Your task to perform on an android device: add a label to a message in the gmail app Image 0: 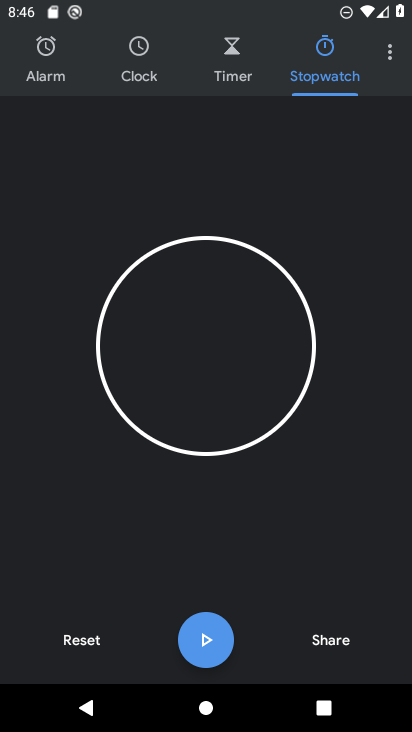
Step 0: press home button
Your task to perform on an android device: add a label to a message in the gmail app Image 1: 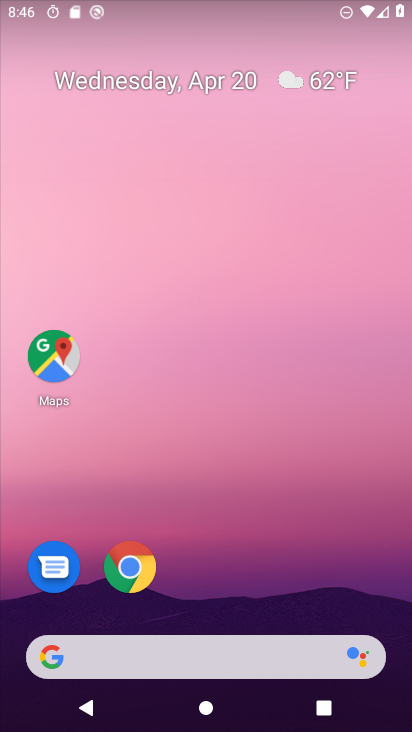
Step 1: drag from (382, 612) to (360, 85)
Your task to perform on an android device: add a label to a message in the gmail app Image 2: 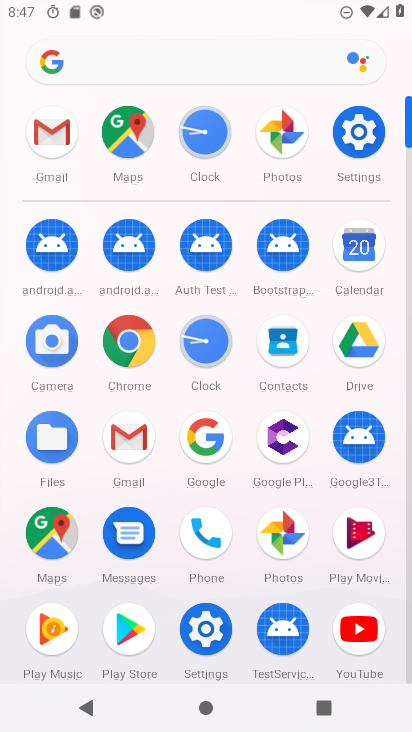
Step 2: click (56, 143)
Your task to perform on an android device: add a label to a message in the gmail app Image 3: 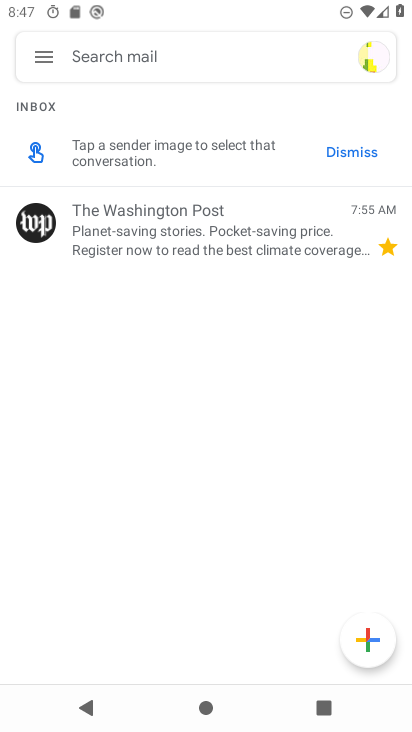
Step 3: click (46, 57)
Your task to perform on an android device: add a label to a message in the gmail app Image 4: 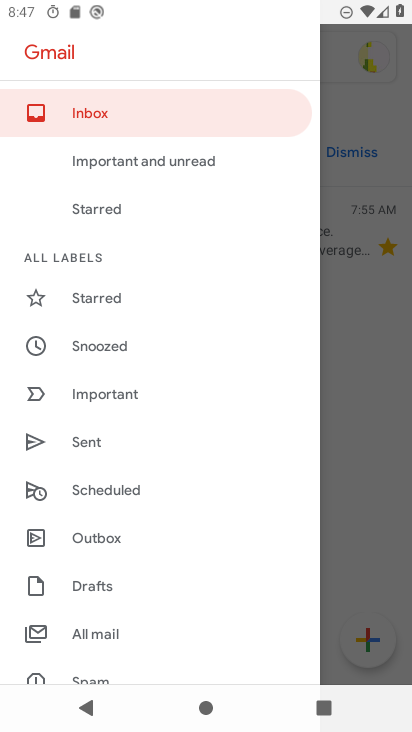
Step 4: click (101, 629)
Your task to perform on an android device: add a label to a message in the gmail app Image 5: 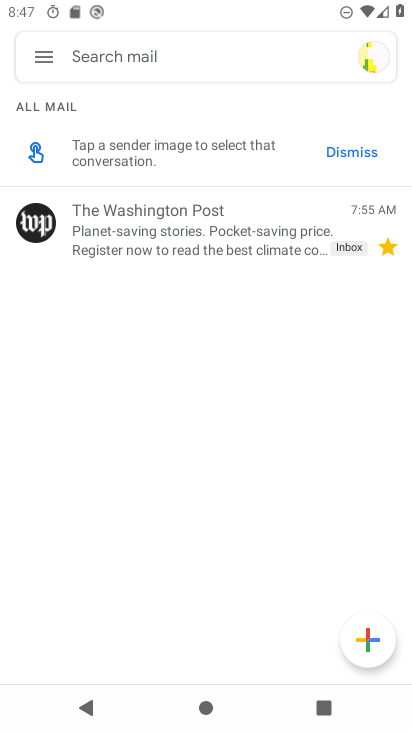
Step 5: click (212, 239)
Your task to perform on an android device: add a label to a message in the gmail app Image 6: 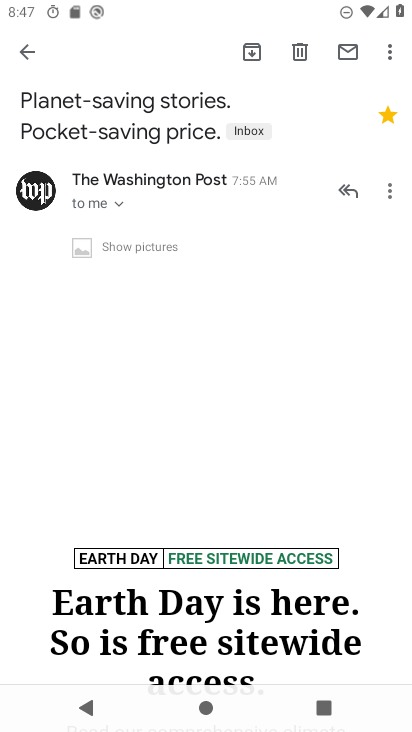
Step 6: task complete